Your task to perform on an android device: create a new album in the google photos Image 0: 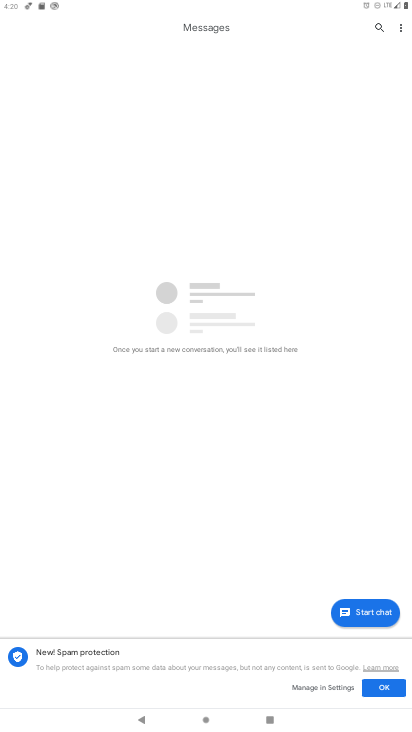
Step 0: press home button
Your task to perform on an android device: create a new album in the google photos Image 1: 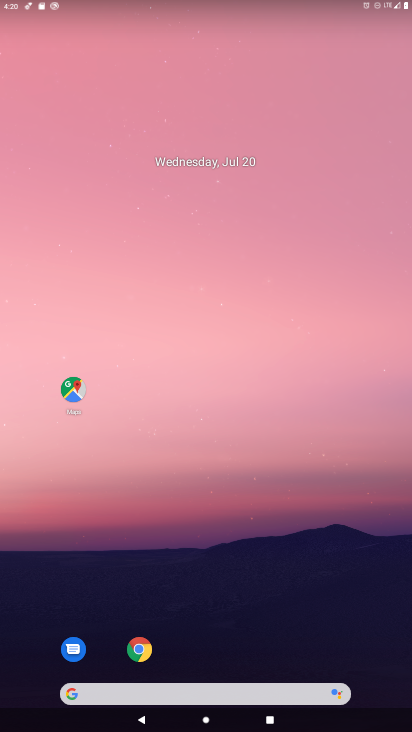
Step 1: drag from (229, 688) to (230, 120)
Your task to perform on an android device: create a new album in the google photos Image 2: 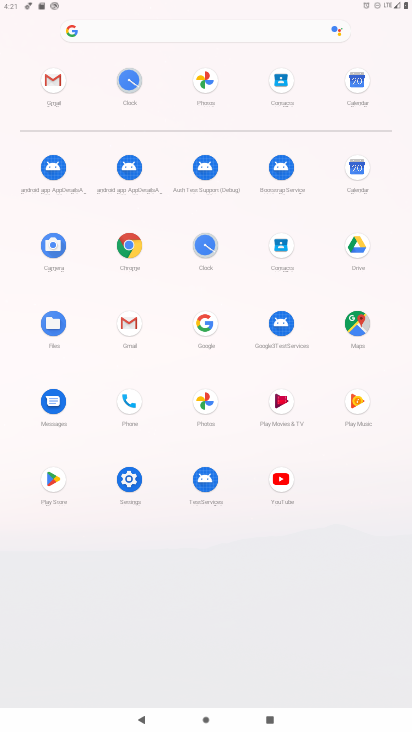
Step 2: click (203, 408)
Your task to perform on an android device: create a new album in the google photos Image 3: 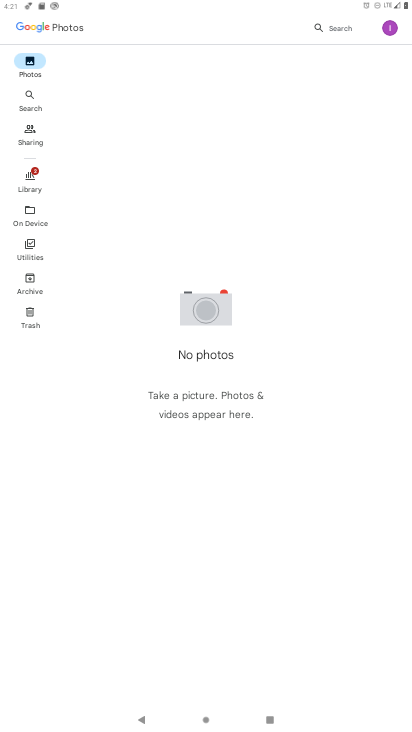
Step 3: click (33, 104)
Your task to perform on an android device: create a new album in the google photos Image 4: 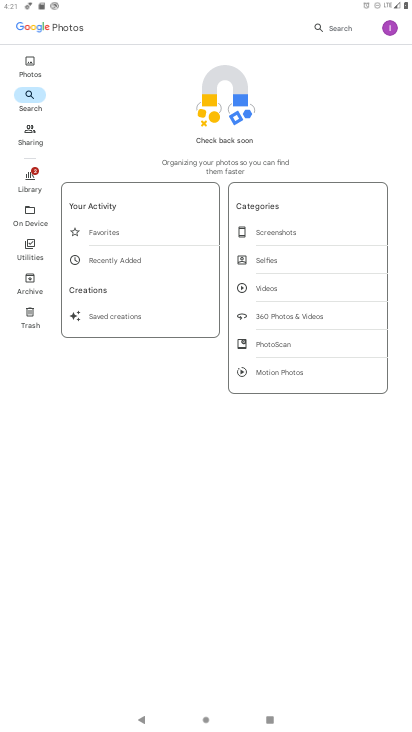
Step 4: click (136, 269)
Your task to perform on an android device: create a new album in the google photos Image 5: 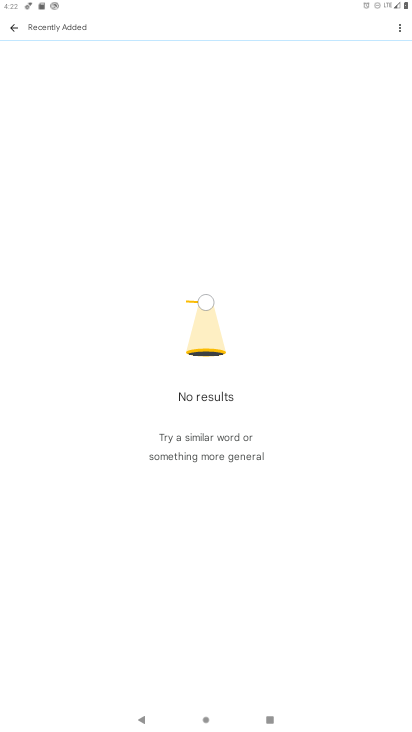
Step 5: task complete